Your task to perform on an android device: Open network settings Image 0: 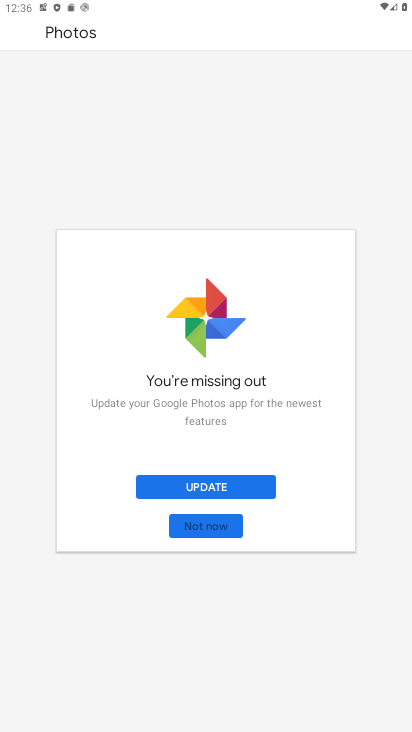
Step 0: press home button
Your task to perform on an android device: Open network settings Image 1: 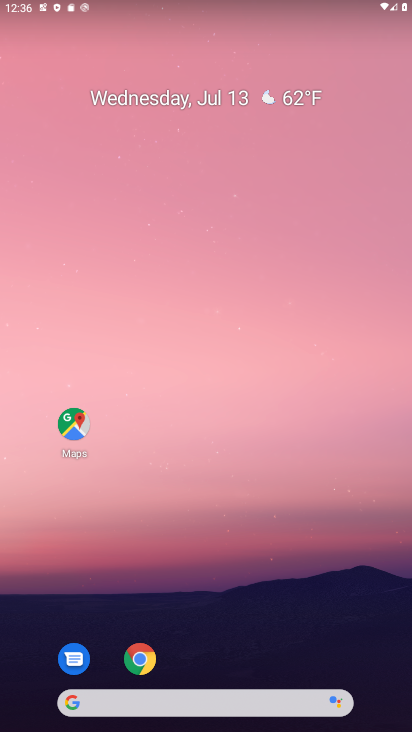
Step 1: click (200, 619)
Your task to perform on an android device: Open network settings Image 2: 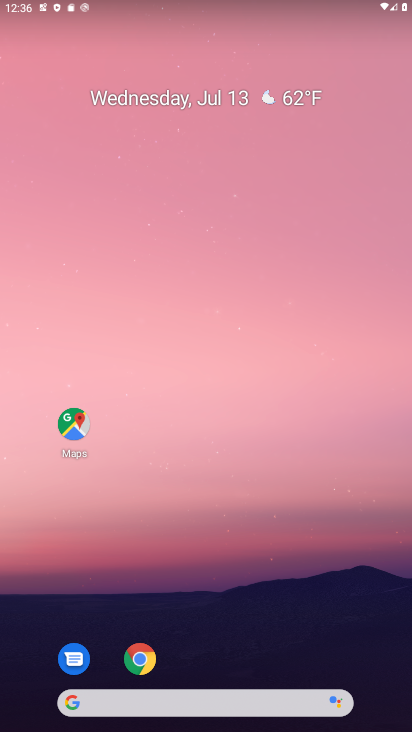
Step 2: drag from (194, 335) to (194, 268)
Your task to perform on an android device: Open network settings Image 3: 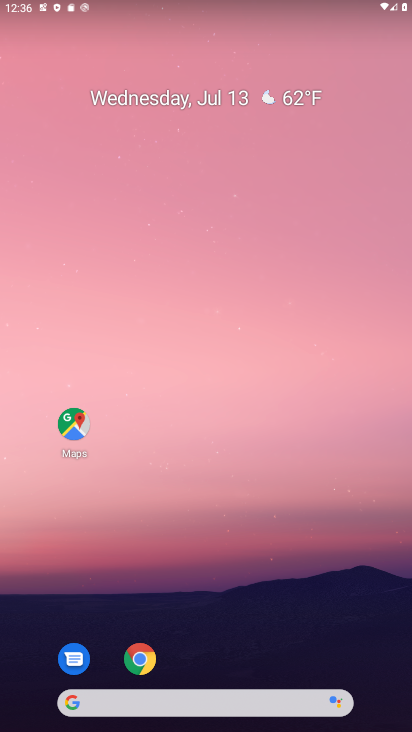
Step 3: drag from (263, 594) to (262, 82)
Your task to perform on an android device: Open network settings Image 4: 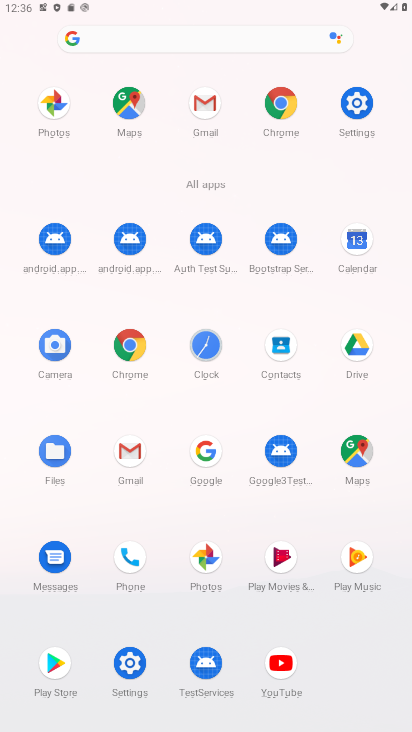
Step 4: click (359, 102)
Your task to perform on an android device: Open network settings Image 5: 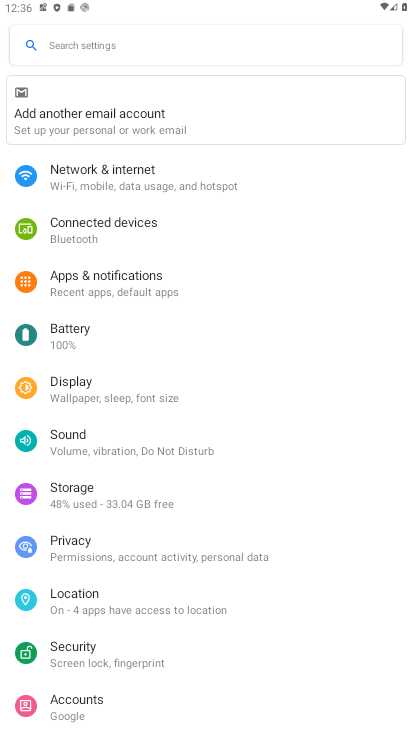
Step 5: click (110, 175)
Your task to perform on an android device: Open network settings Image 6: 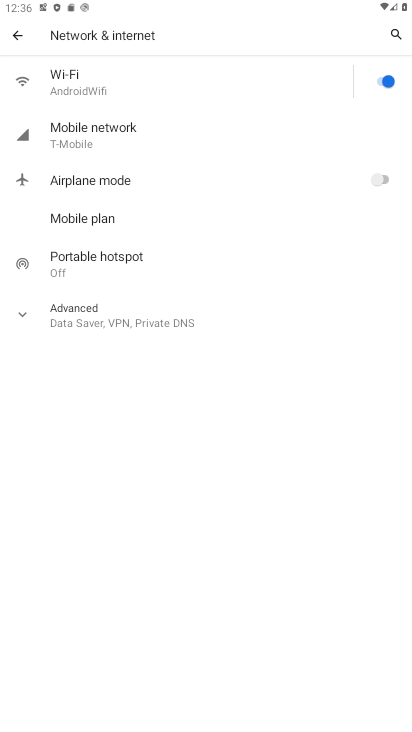
Step 6: click (82, 135)
Your task to perform on an android device: Open network settings Image 7: 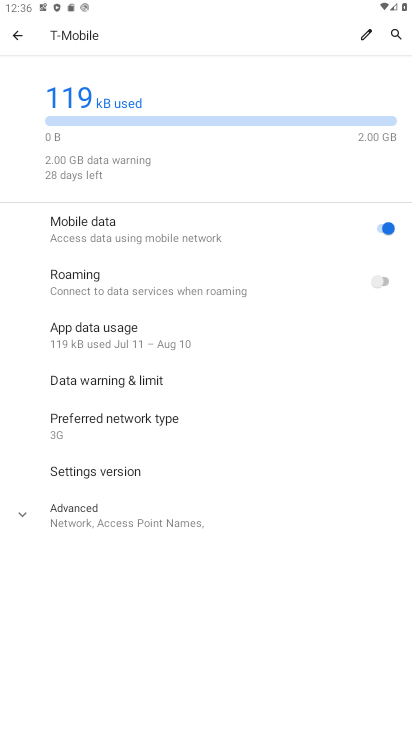
Step 7: task complete